Your task to perform on an android device: see creations saved in the google photos Image 0: 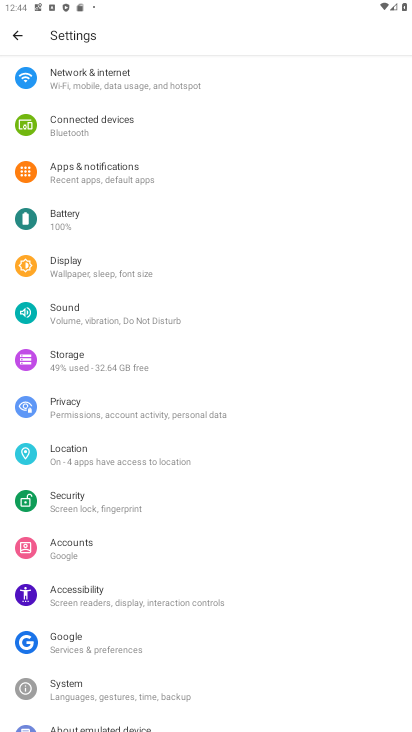
Step 0: press home button
Your task to perform on an android device: see creations saved in the google photos Image 1: 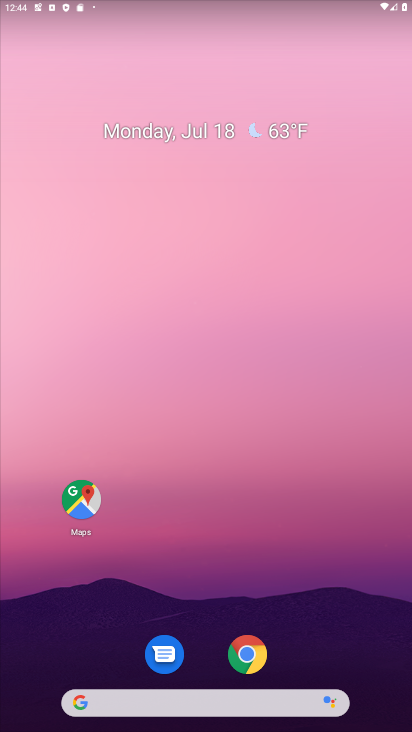
Step 1: drag from (200, 597) to (238, 85)
Your task to perform on an android device: see creations saved in the google photos Image 2: 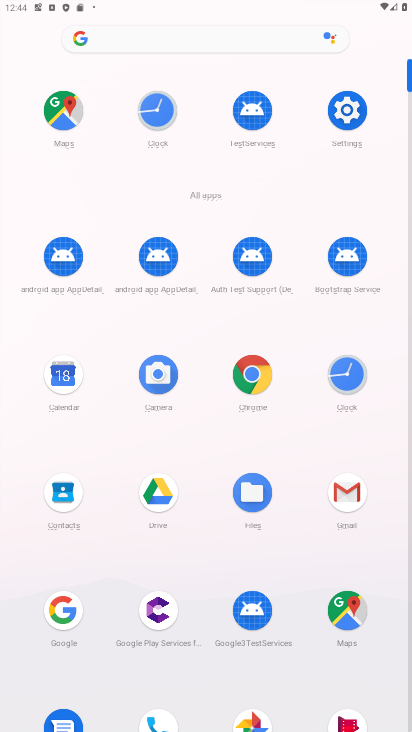
Step 2: drag from (305, 538) to (308, 308)
Your task to perform on an android device: see creations saved in the google photos Image 3: 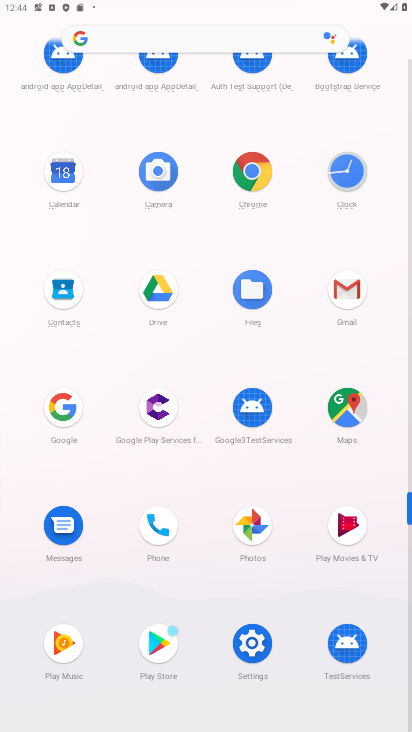
Step 3: click (255, 528)
Your task to perform on an android device: see creations saved in the google photos Image 4: 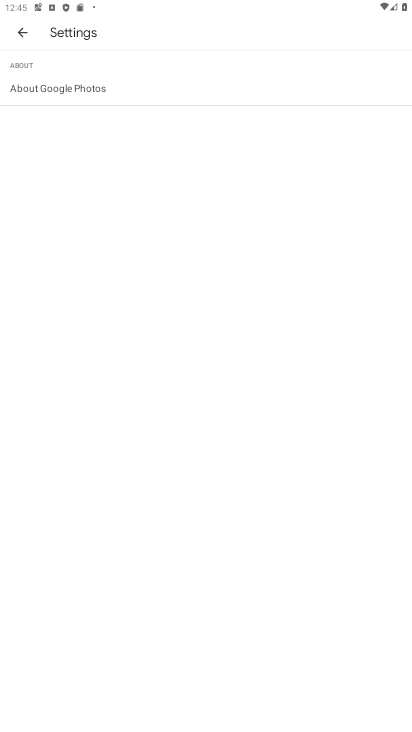
Step 4: click (26, 44)
Your task to perform on an android device: see creations saved in the google photos Image 5: 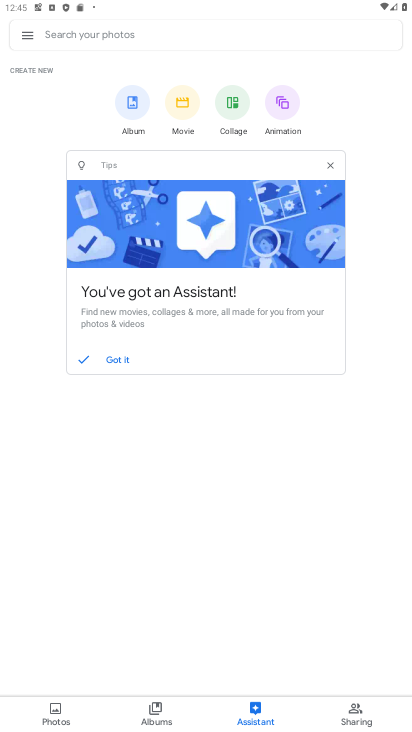
Step 5: click (44, 698)
Your task to perform on an android device: see creations saved in the google photos Image 6: 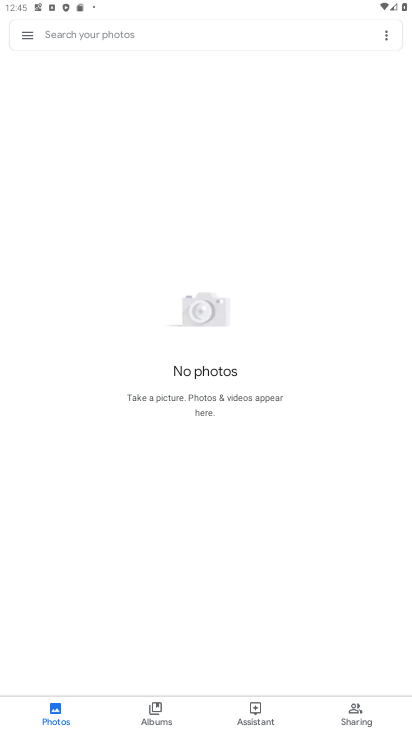
Step 6: click (190, 32)
Your task to perform on an android device: see creations saved in the google photos Image 7: 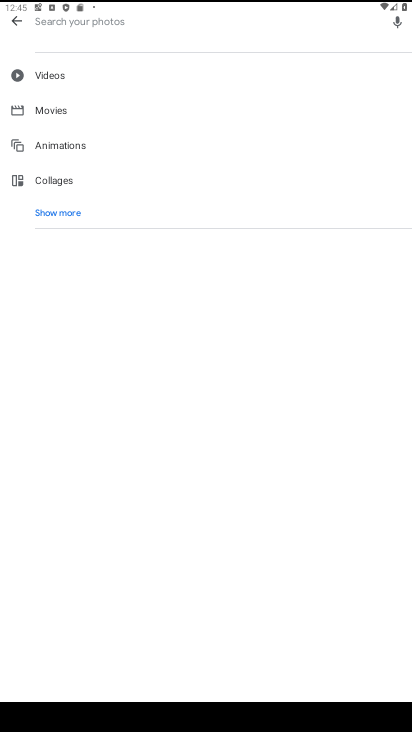
Step 7: click (63, 209)
Your task to perform on an android device: see creations saved in the google photos Image 8: 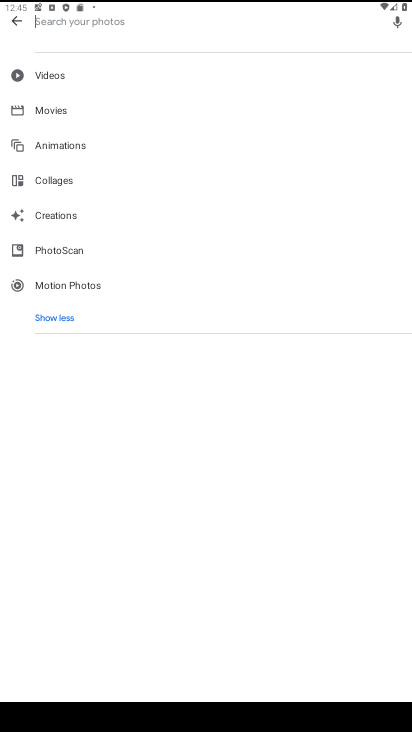
Step 8: click (63, 209)
Your task to perform on an android device: see creations saved in the google photos Image 9: 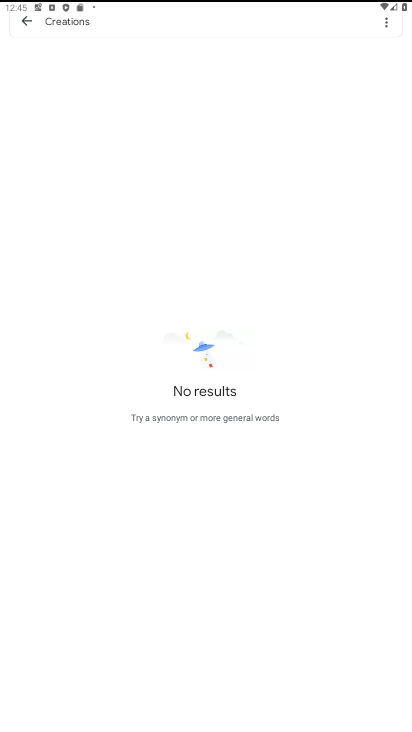
Step 9: task complete